Your task to perform on an android device: turn on javascript in the chrome app Image 0: 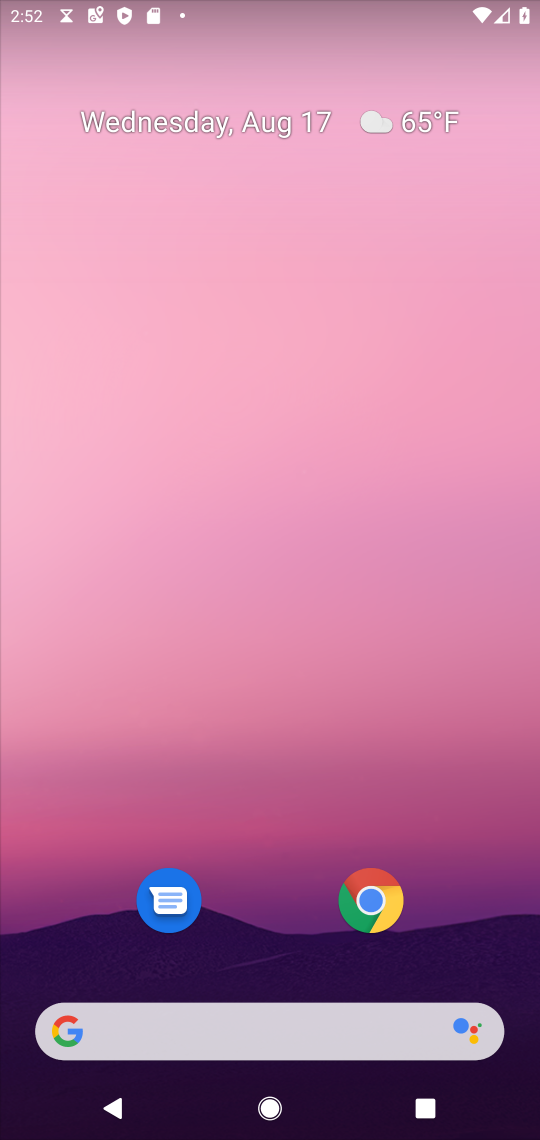
Step 0: click (364, 912)
Your task to perform on an android device: turn on javascript in the chrome app Image 1: 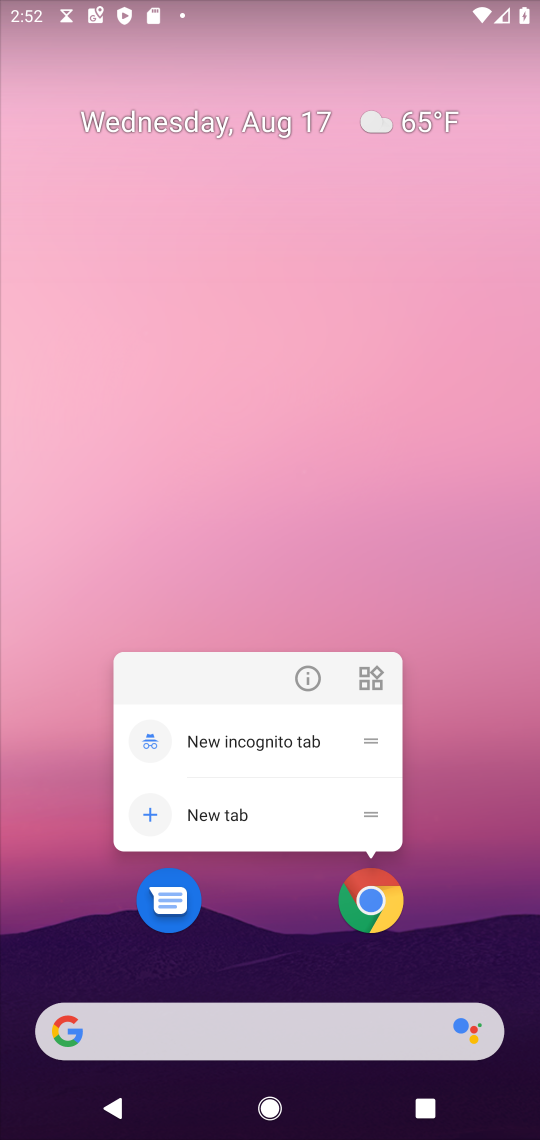
Step 1: click (364, 909)
Your task to perform on an android device: turn on javascript in the chrome app Image 2: 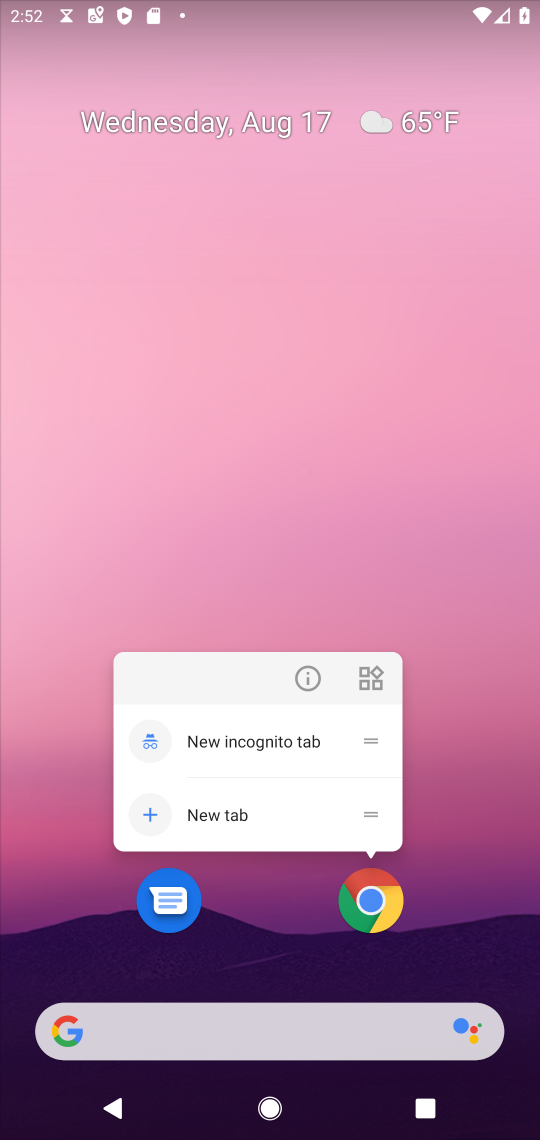
Step 2: click (379, 899)
Your task to perform on an android device: turn on javascript in the chrome app Image 3: 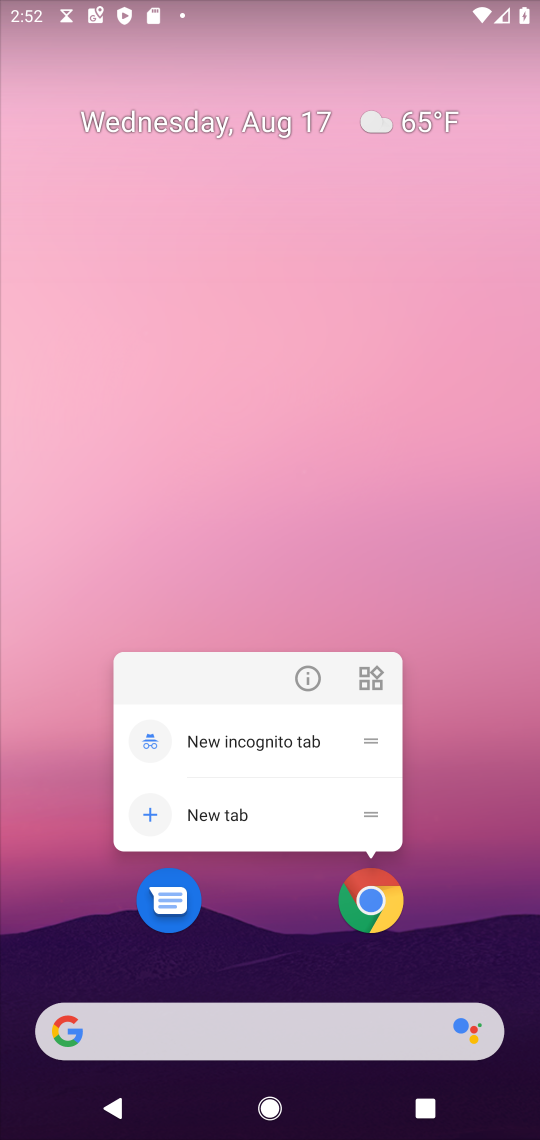
Step 3: click (379, 900)
Your task to perform on an android device: turn on javascript in the chrome app Image 4: 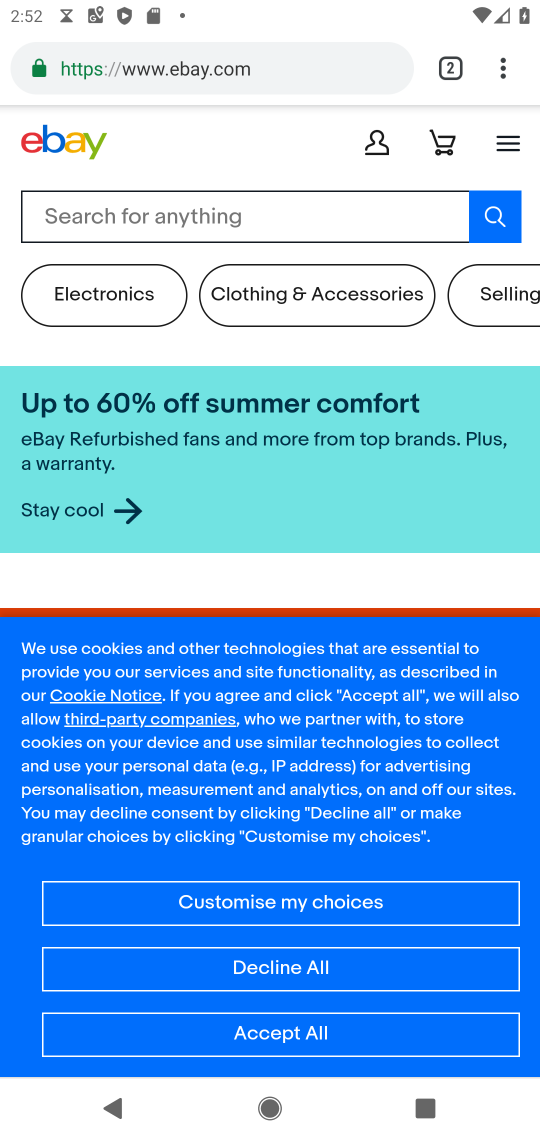
Step 4: drag from (494, 59) to (306, 896)
Your task to perform on an android device: turn on javascript in the chrome app Image 5: 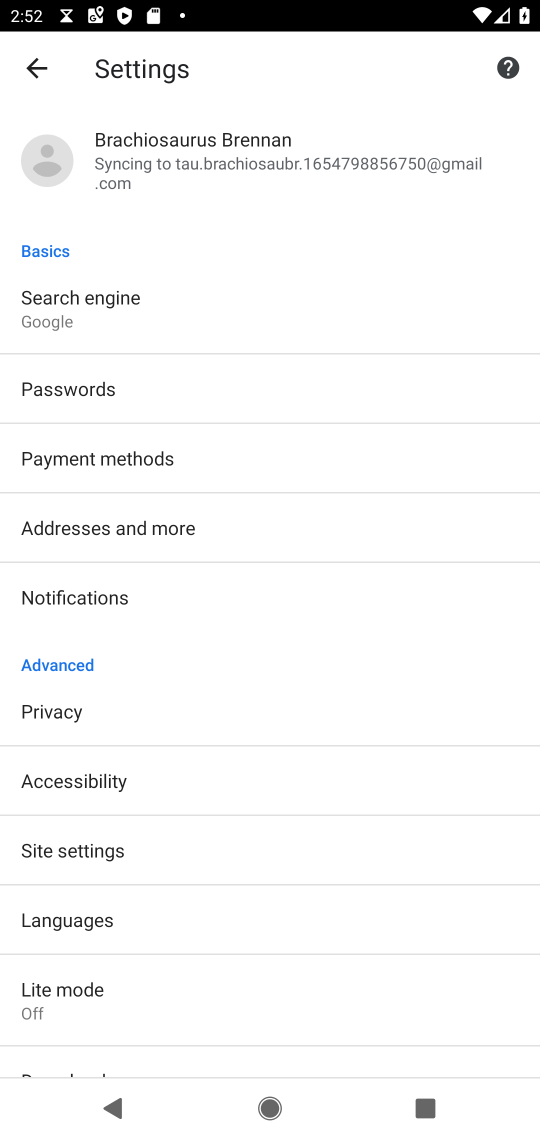
Step 5: click (89, 850)
Your task to perform on an android device: turn on javascript in the chrome app Image 6: 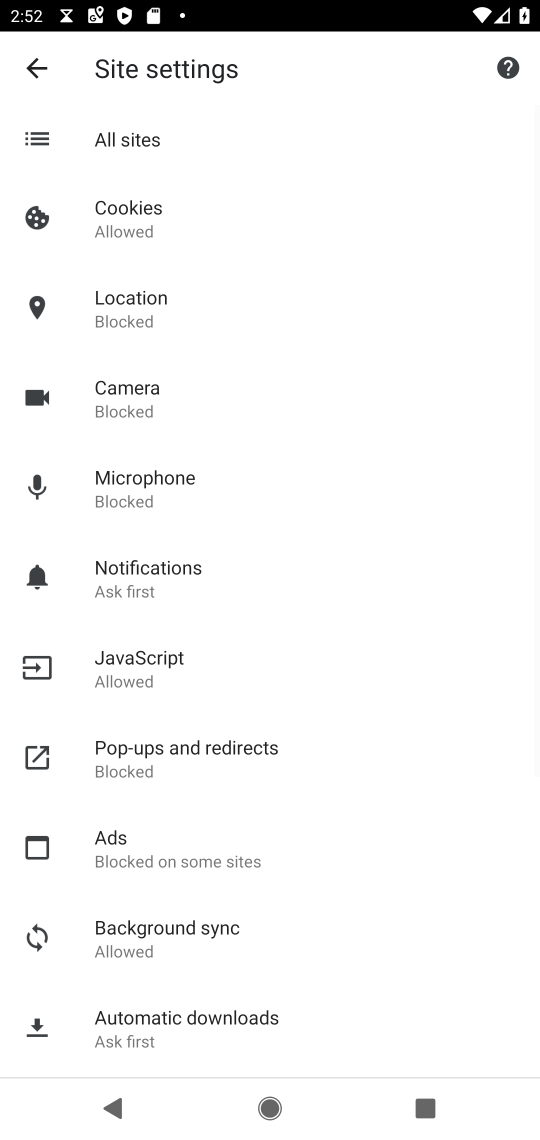
Step 6: click (112, 656)
Your task to perform on an android device: turn on javascript in the chrome app Image 7: 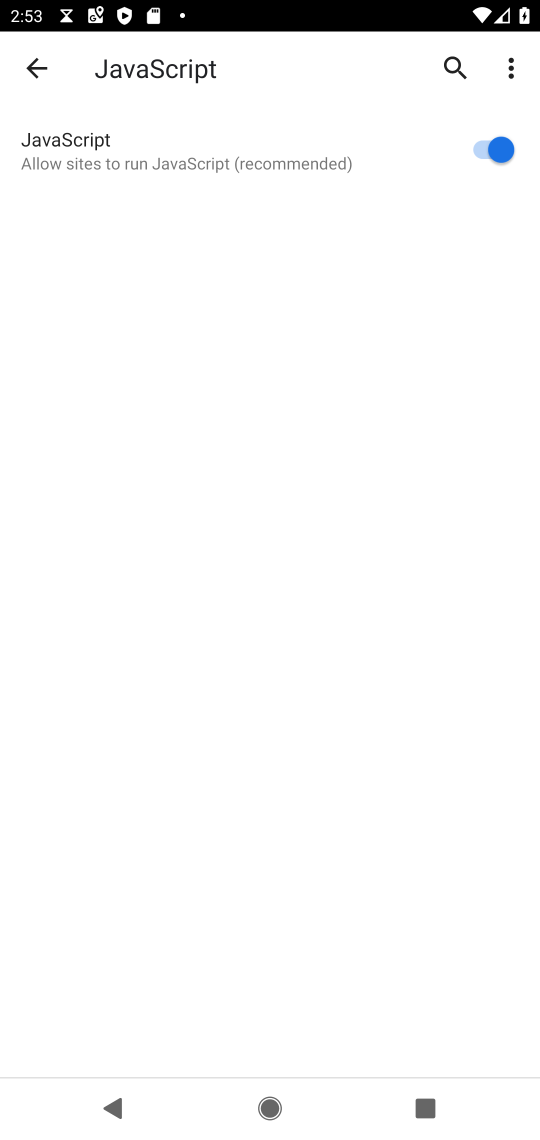
Step 7: task complete